Your task to perform on an android device: allow cookies in the chrome app Image 0: 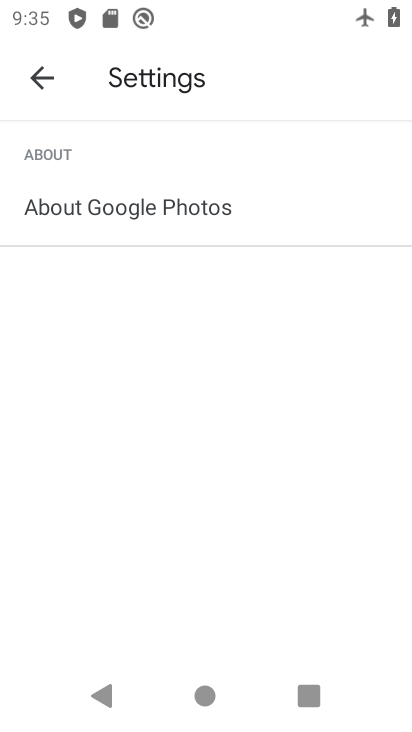
Step 0: press home button
Your task to perform on an android device: allow cookies in the chrome app Image 1: 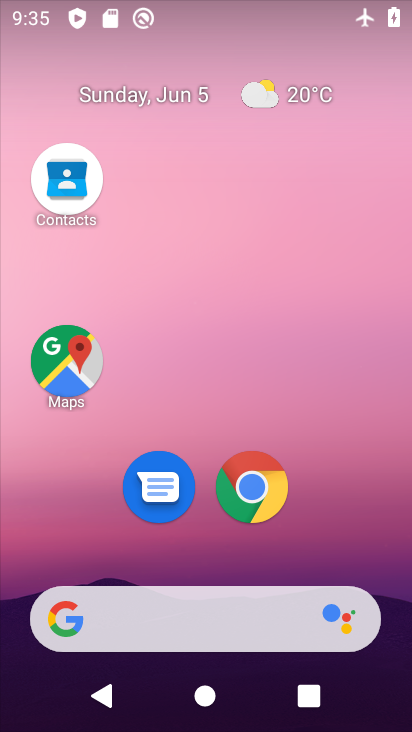
Step 1: drag from (242, 558) to (278, 243)
Your task to perform on an android device: allow cookies in the chrome app Image 2: 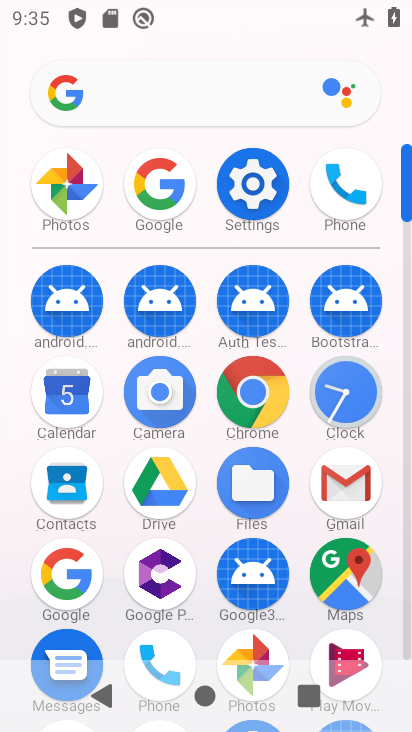
Step 2: click (250, 391)
Your task to perform on an android device: allow cookies in the chrome app Image 3: 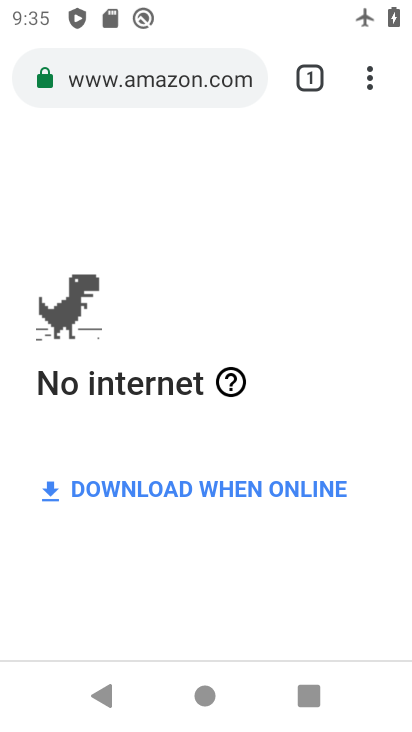
Step 3: click (367, 74)
Your task to perform on an android device: allow cookies in the chrome app Image 4: 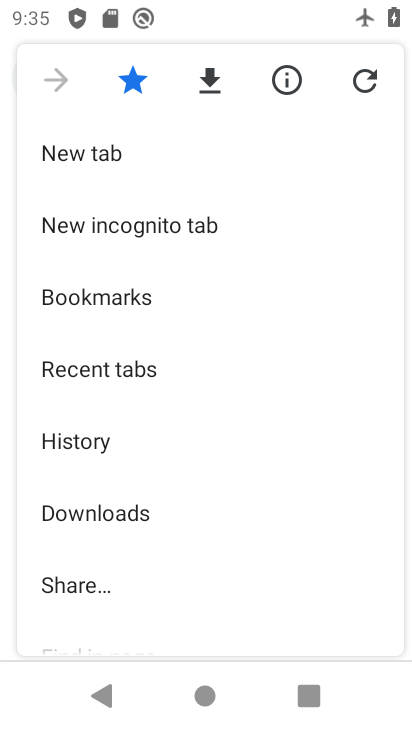
Step 4: drag from (192, 357) to (228, 244)
Your task to perform on an android device: allow cookies in the chrome app Image 5: 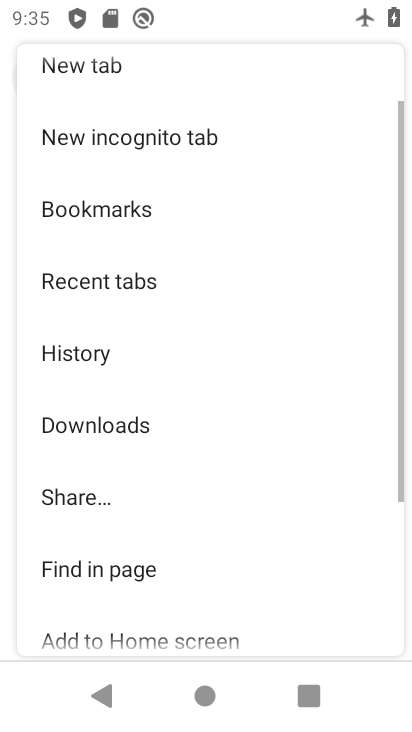
Step 5: click (244, 182)
Your task to perform on an android device: allow cookies in the chrome app Image 6: 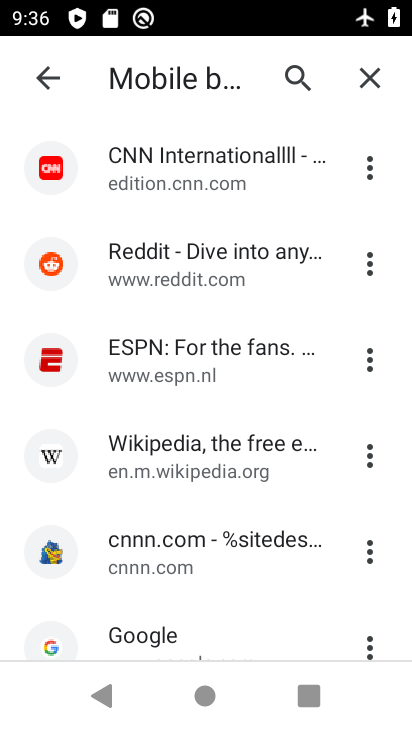
Step 6: click (47, 72)
Your task to perform on an android device: allow cookies in the chrome app Image 7: 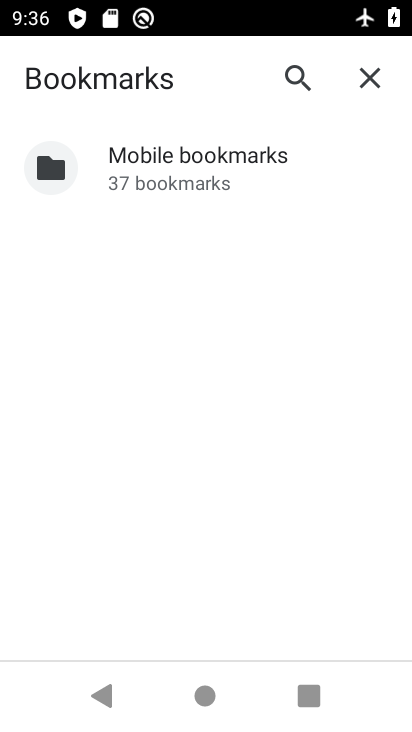
Step 7: click (379, 80)
Your task to perform on an android device: allow cookies in the chrome app Image 8: 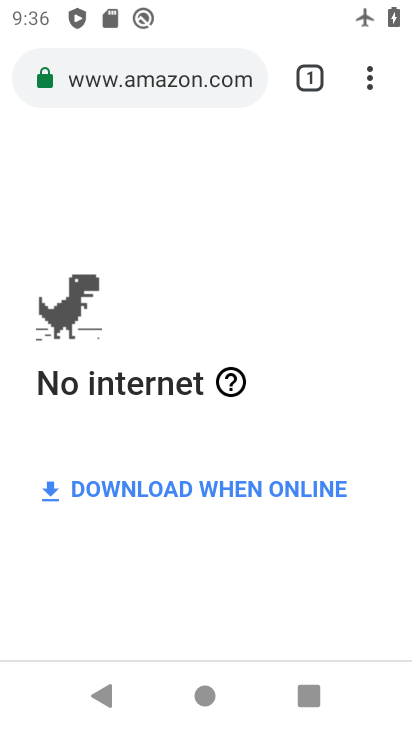
Step 8: click (376, 90)
Your task to perform on an android device: allow cookies in the chrome app Image 9: 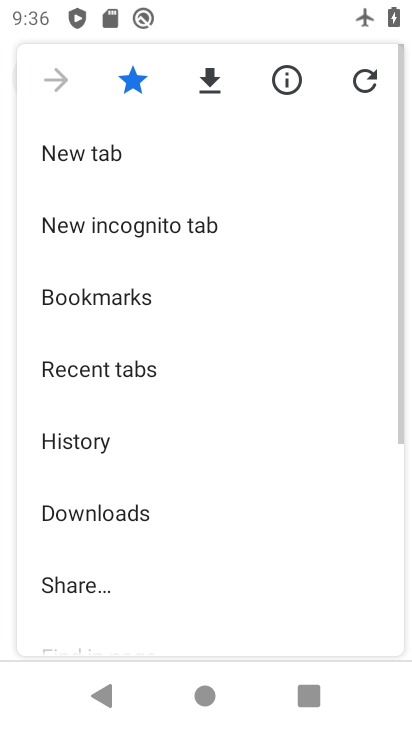
Step 9: drag from (204, 494) to (285, 181)
Your task to perform on an android device: allow cookies in the chrome app Image 10: 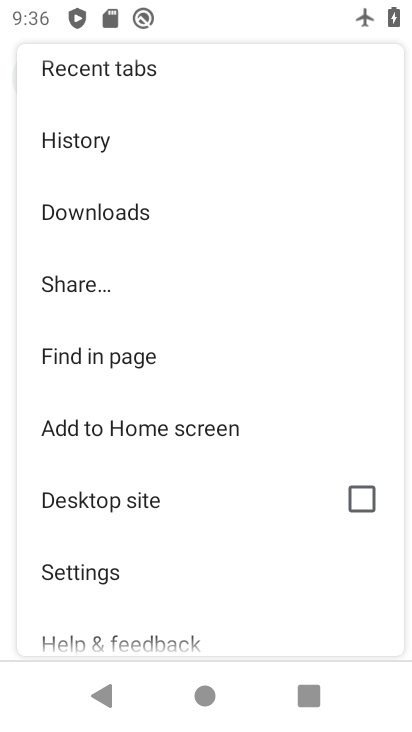
Step 10: click (133, 570)
Your task to perform on an android device: allow cookies in the chrome app Image 11: 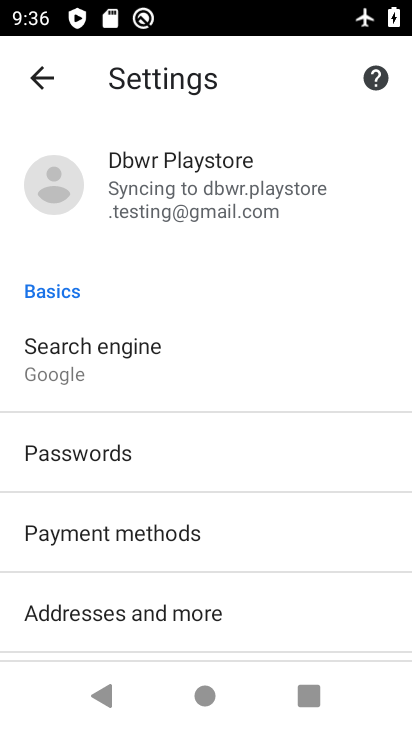
Step 11: drag from (113, 533) to (223, 233)
Your task to perform on an android device: allow cookies in the chrome app Image 12: 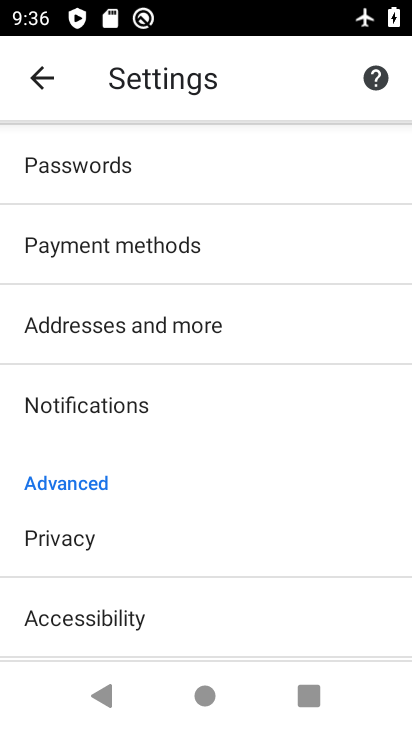
Step 12: drag from (101, 601) to (184, 433)
Your task to perform on an android device: allow cookies in the chrome app Image 13: 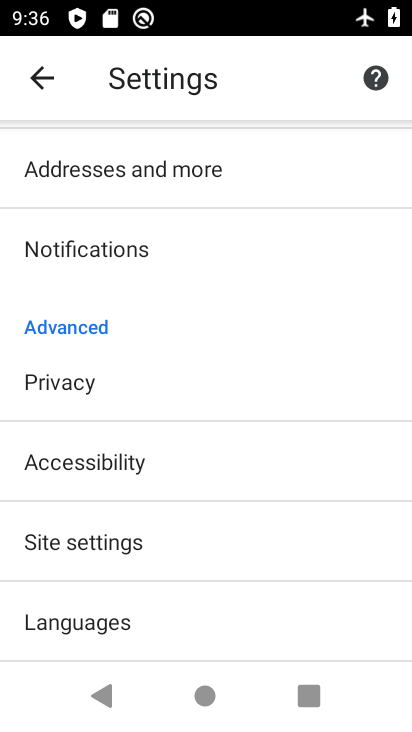
Step 13: click (144, 548)
Your task to perform on an android device: allow cookies in the chrome app Image 14: 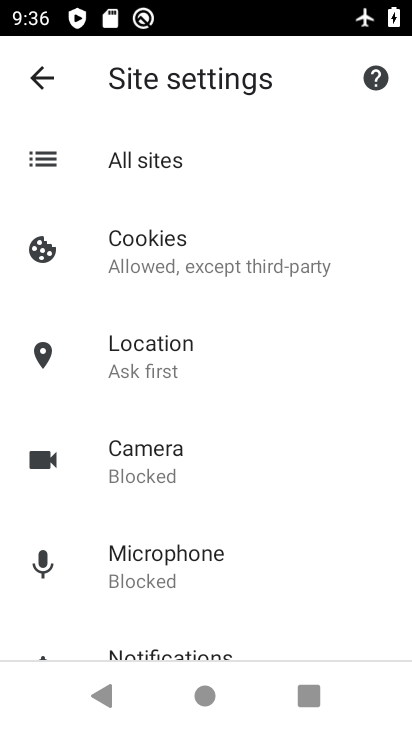
Step 14: click (278, 252)
Your task to perform on an android device: allow cookies in the chrome app Image 15: 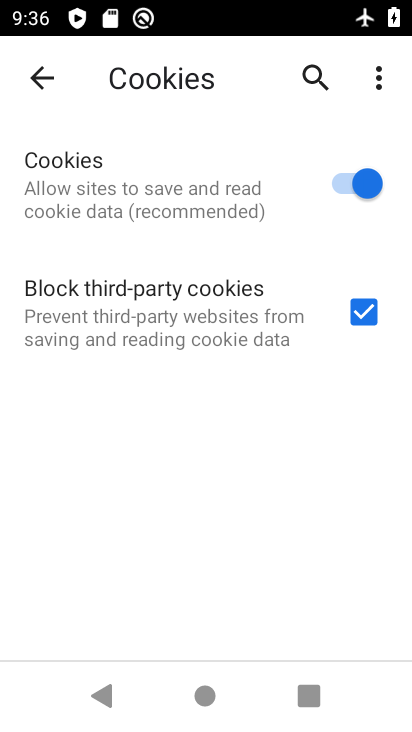
Step 15: task complete